Your task to perform on an android device: Open privacy settings Image 0: 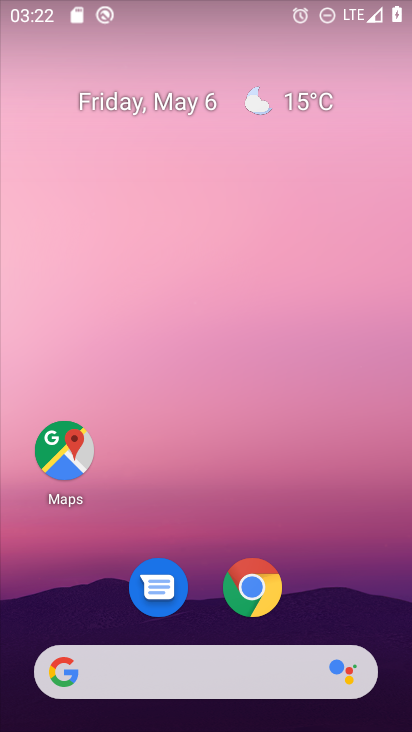
Step 0: press home button
Your task to perform on an android device: Open privacy settings Image 1: 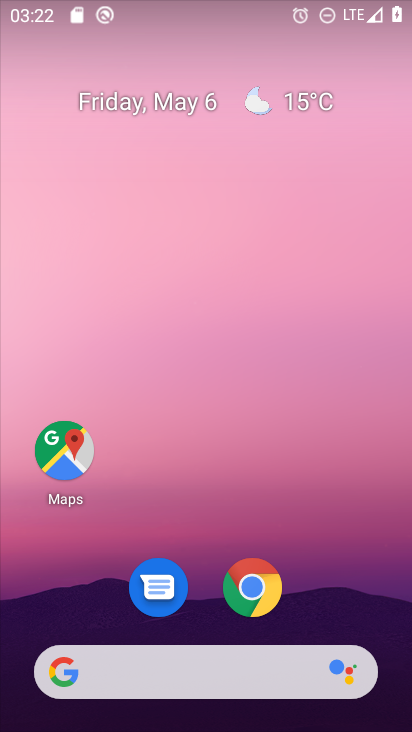
Step 1: drag from (326, 591) to (248, 32)
Your task to perform on an android device: Open privacy settings Image 2: 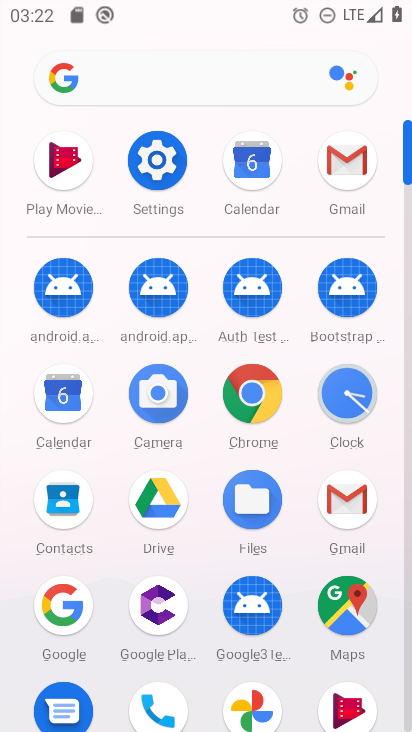
Step 2: click (156, 160)
Your task to perform on an android device: Open privacy settings Image 3: 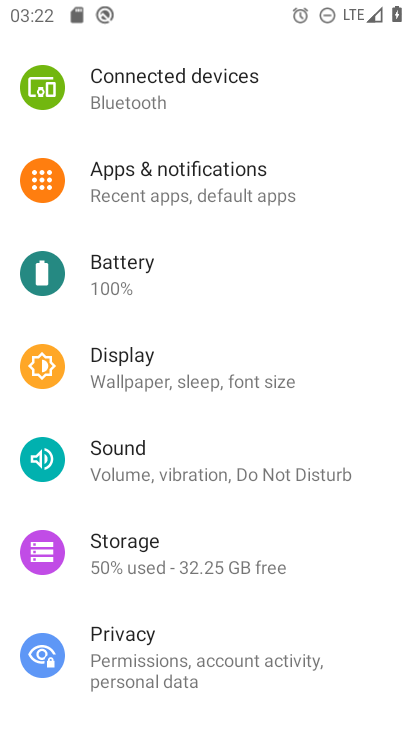
Step 3: click (150, 451)
Your task to perform on an android device: Open privacy settings Image 4: 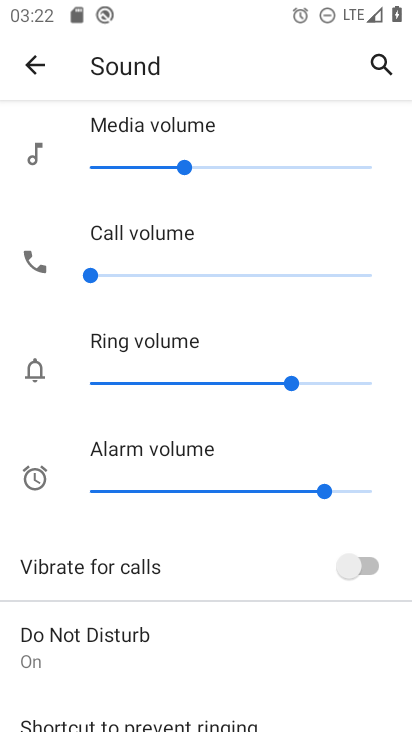
Step 4: task complete